Your task to perform on an android device: Show me productivity apps on the Play Store Image 0: 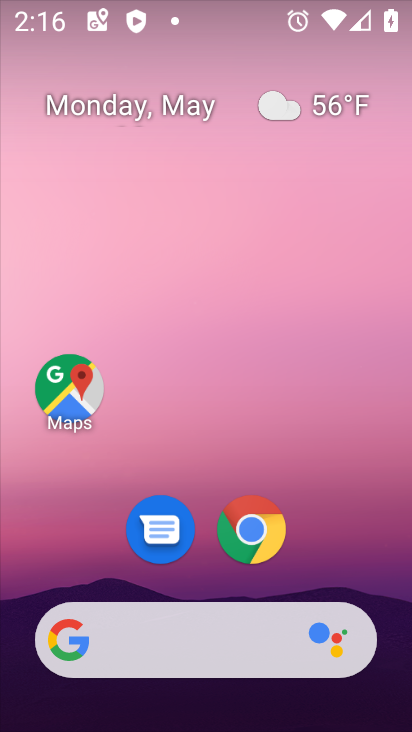
Step 0: drag from (328, 561) to (315, 97)
Your task to perform on an android device: Show me productivity apps on the Play Store Image 1: 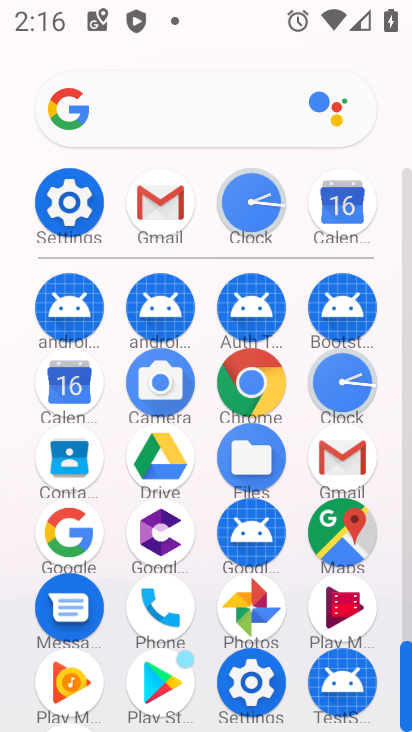
Step 1: click (161, 667)
Your task to perform on an android device: Show me productivity apps on the Play Store Image 2: 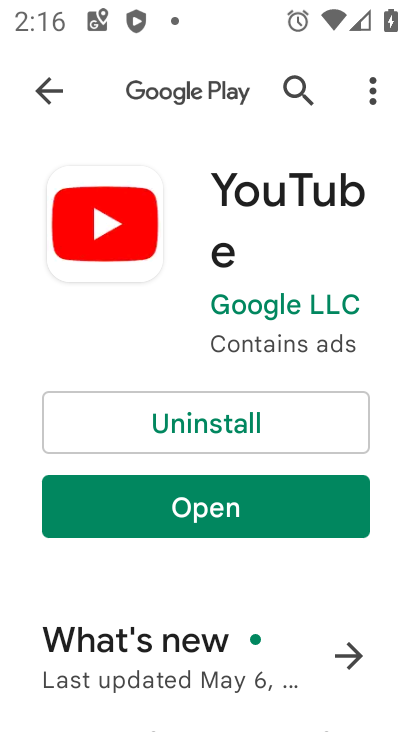
Step 2: click (31, 98)
Your task to perform on an android device: Show me productivity apps on the Play Store Image 3: 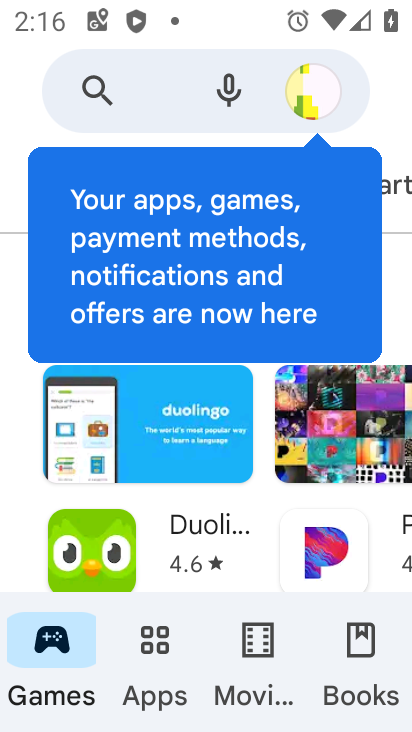
Step 3: click (114, 679)
Your task to perform on an android device: Show me productivity apps on the Play Store Image 4: 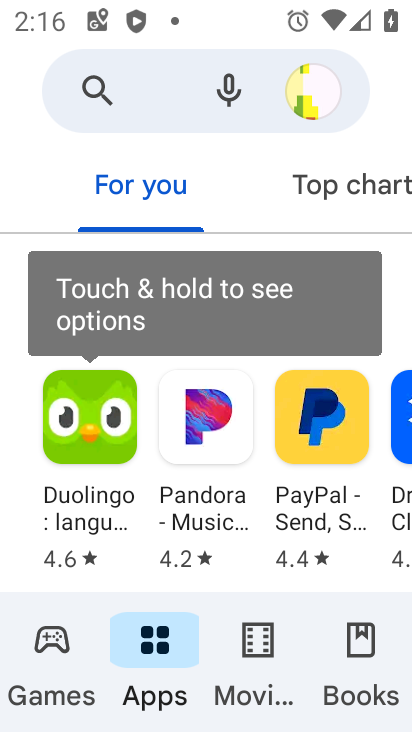
Step 4: drag from (376, 180) to (28, 212)
Your task to perform on an android device: Show me productivity apps on the Play Store Image 5: 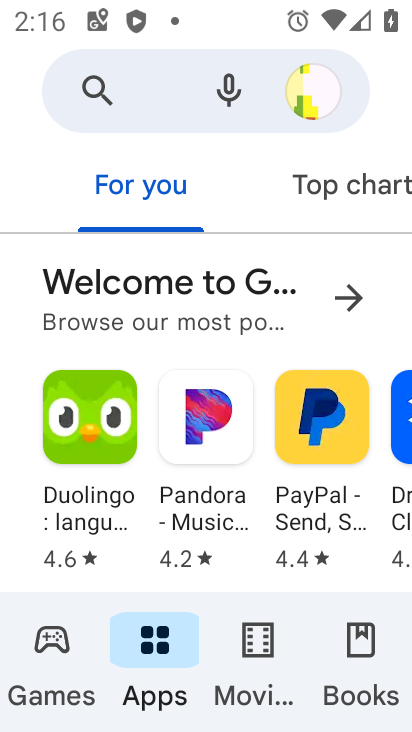
Step 5: drag from (353, 189) to (16, 223)
Your task to perform on an android device: Show me productivity apps on the Play Store Image 6: 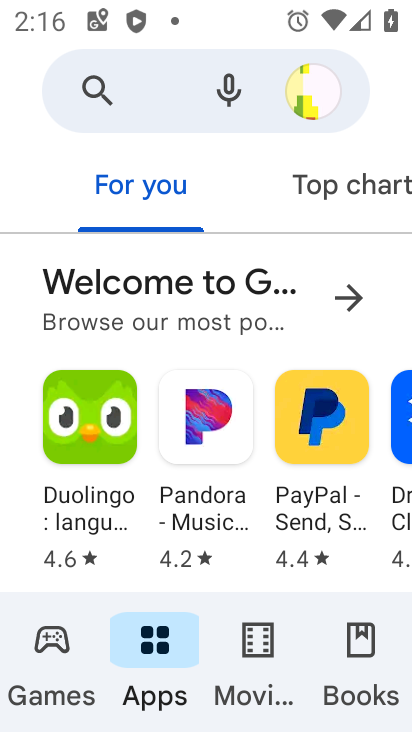
Step 6: drag from (354, 187) to (79, 212)
Your task to perform on an android device: Show me productivity apps on the Play Store Image 7: 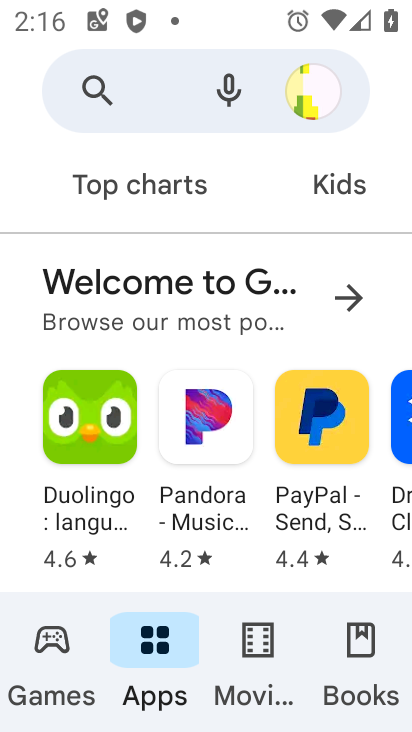
Step 7: drag from (379, 209) to (140, 220)
Your task to perform on an android device: Show me productivity apps on the Play Store Image 8: 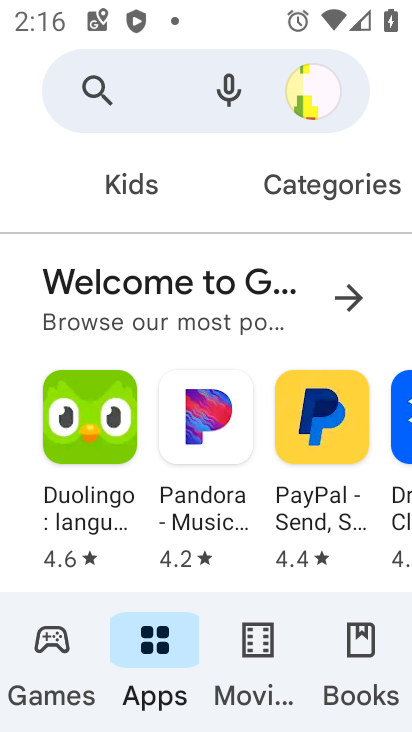
Step 8: click (324, 199)
Your task to perform on an android device: Show me productivity apps on the Play Store Image 9: 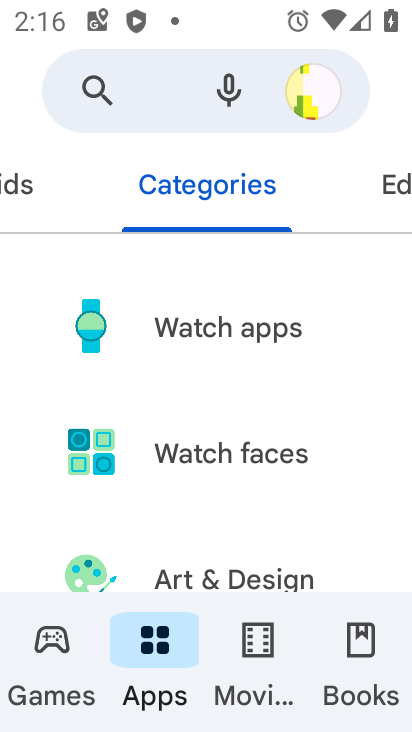
Step 9: drag from (259, 527) to (272, 263)
Your task to perform on an android device: Show me productivity apps on the Play Store Image 10: 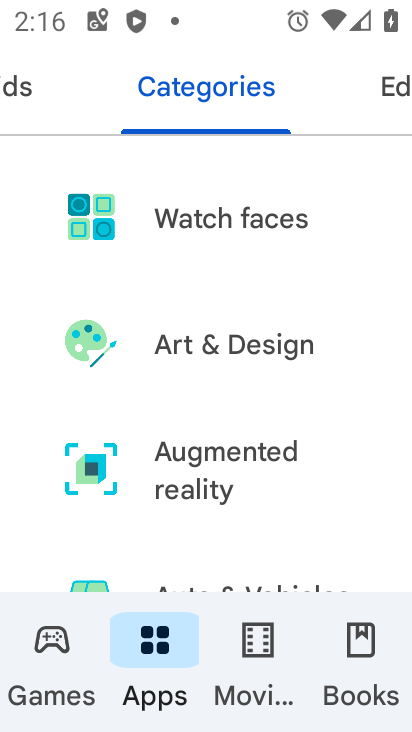
Step 10: drag from (284, 490) to (282, 202)
Your task to perform on an android device: Show me productivity apps on the Play Store Image 11: 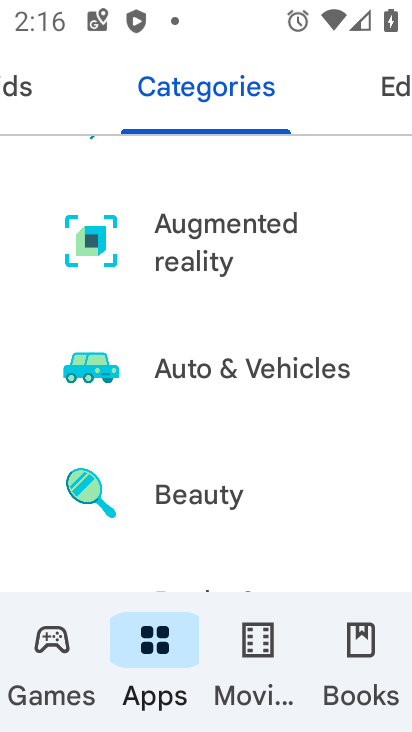
Step 11: drag from (300, 504) to (291, 311)
Your task to perform on an android device: Show me productivity apps on the Play Store Image 12: 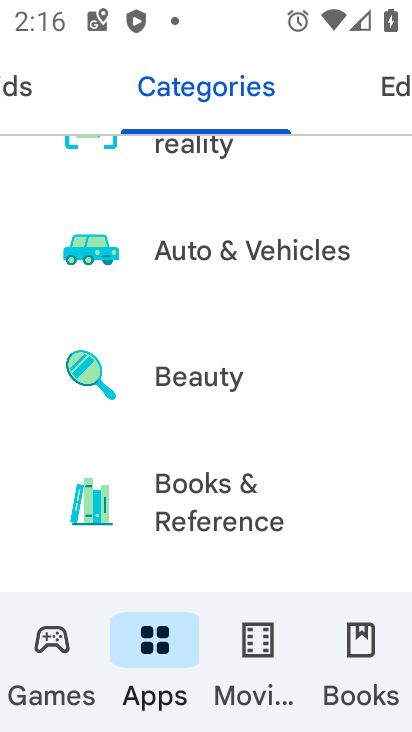
Step 12: drag from (288, 505) to (270, 173)
Your task to perform on an android device: Show me productivity apps on the Play Store Image 13: 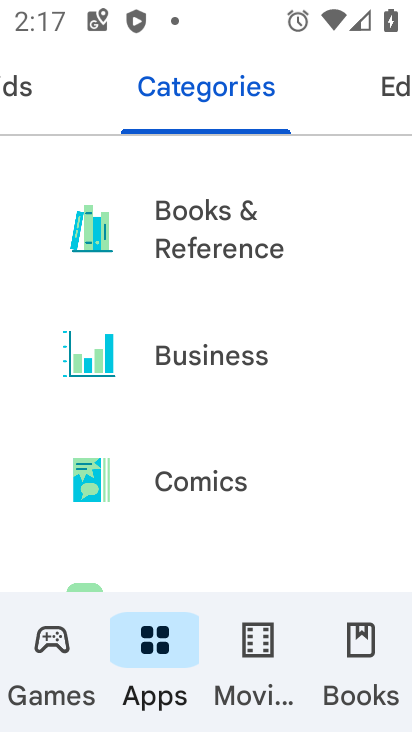
Step 13: drag from (295, 478) to (270, 288)
Your task to perform on an android device: Show me productivity apps on the Play Store Image 14: 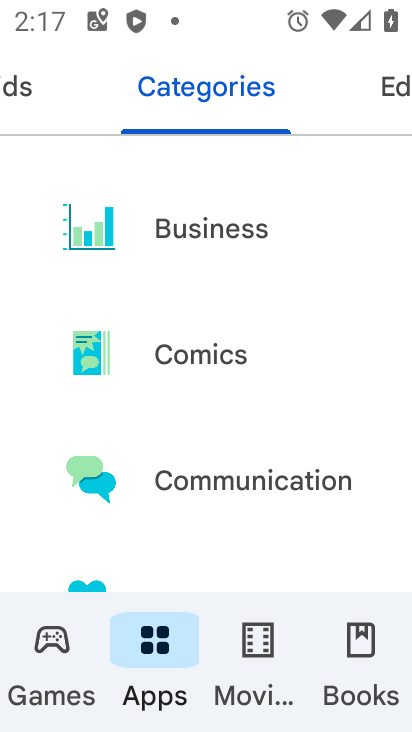
Step 14: drag from (314, 492) to (303, 325)
Your task to perform on an android device: Show me productivity apps on the Play Store Image 15: 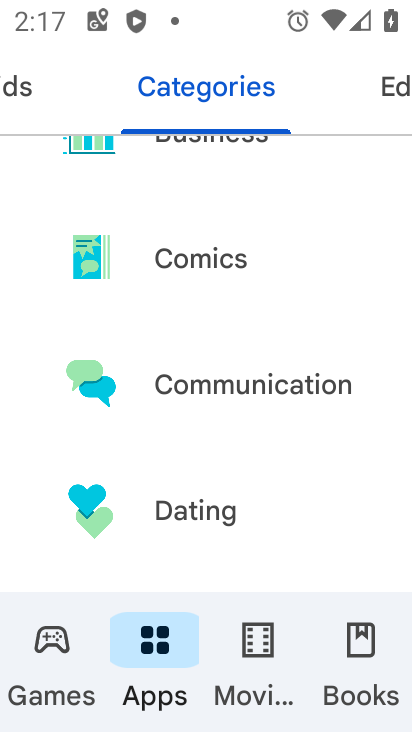
Step 15: drag from (314, 538) to (287, 402)
Your task to perform on an android device: Show me productivity apps on the Play Store Image 16: 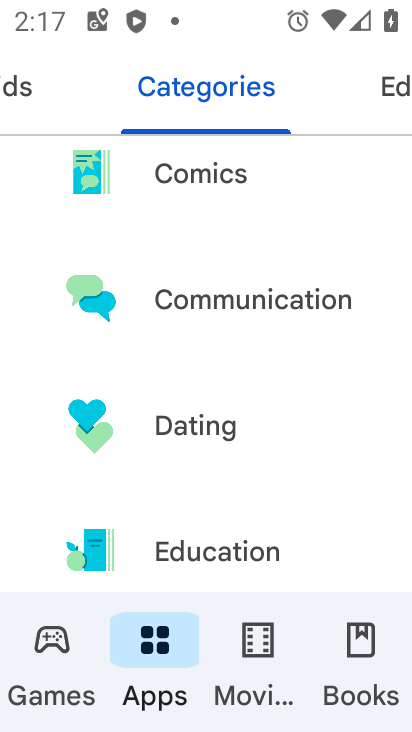
Step 16: drag from (298, 509) to (296, 320)
Your task to perform on an android device: Show me productivity apps on the Play Store Image 17: 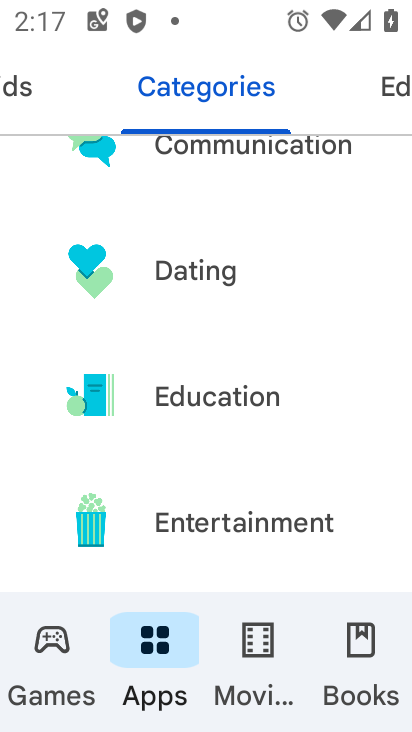
Step 17: drag from (310, 500) to (290, 316)
Your task to perform on an android device: Show me productivity apps on the Play Store Image 18: 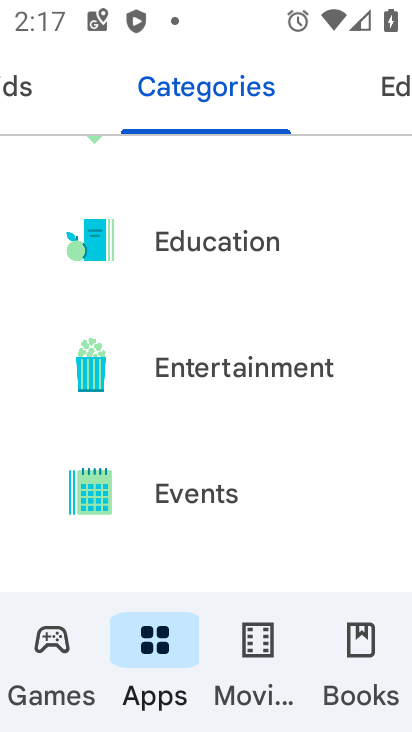
Step 18: click (301, 312)
Your task to perform on an android device: Show me productivity apps on the Play Store Image 19: 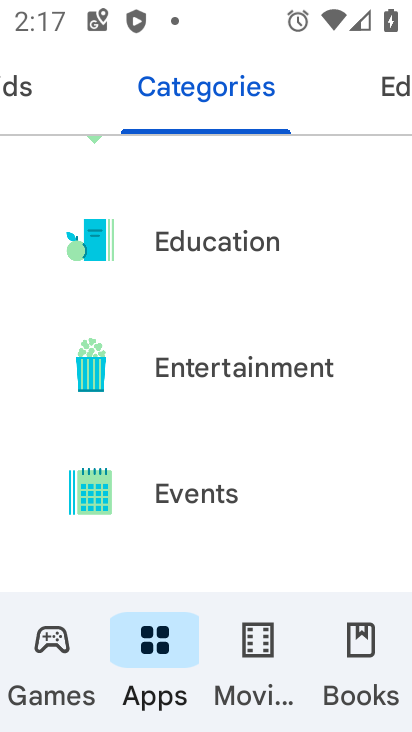
Step 19: drag from (276, 543) to (274, 371)
Your task to perform on an android device: Show me productivity apps on the Play Store Image 20: 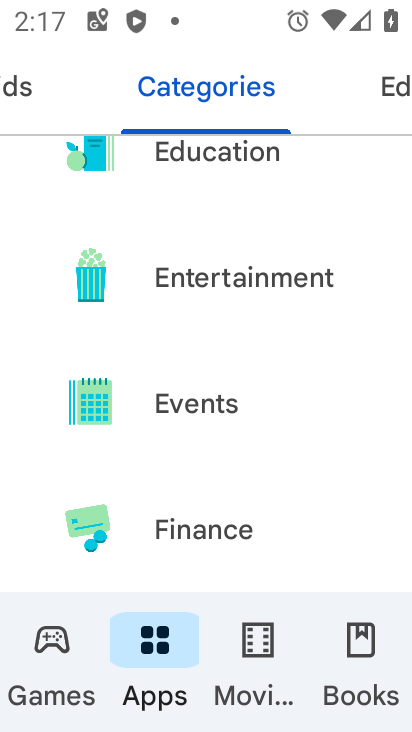
Step 20: drag from (292, 516) to (282, 356)
Your task to perform on an android device: Show me productivity apps on the Play Store Image 21: 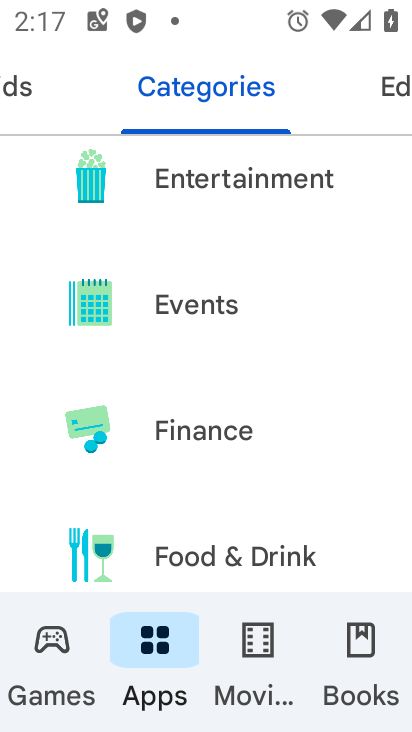
Step 21: drag from (279, 533) to (244, 295)
Your task to perform on an android device: Show me productivity apps on the Play Store Image 22: 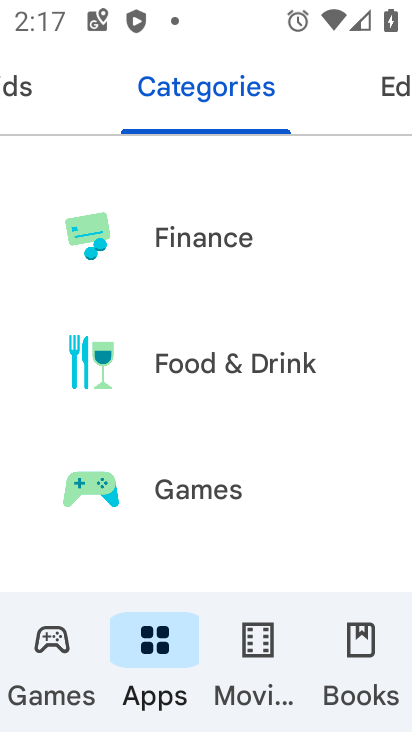
Step 22: drag from (260, 519) to (263, 264)
Your task to perform on an android device: Show me productivity apps on the Play Store Image 23: 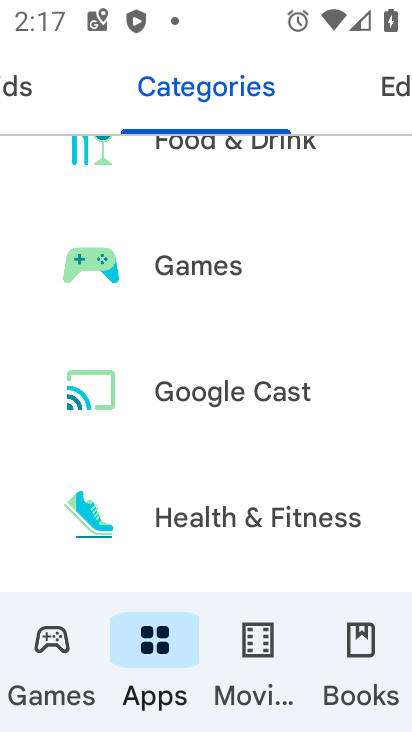
Step 23: drag from (276, 522) to (247, 297)
Your task to perform on an android device: Show me productivity apps on the Play Store Image 24: 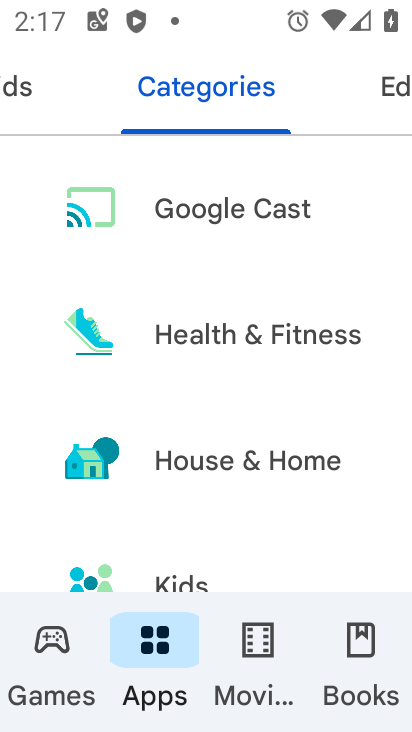
Step 24: drag from (226, 500) to (217, 282)
Your task to perform on an android device: Show me productivity apps on the Play Store Image 25: 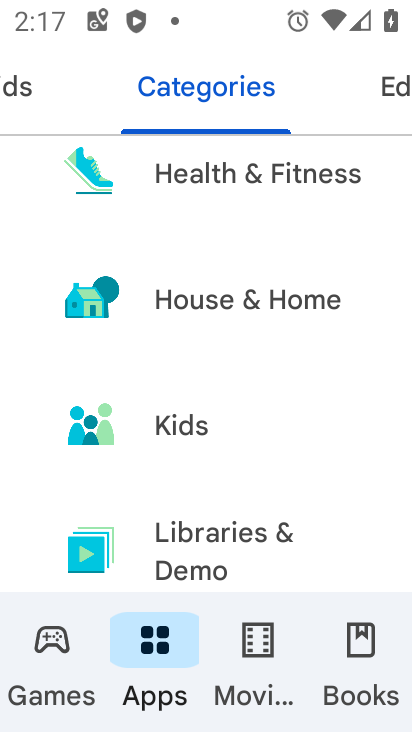
Step 25: drag from (195, 539) to (196, 375)
Your task to perform on an android device: Show me productivity apps on the Play Store Image 26: 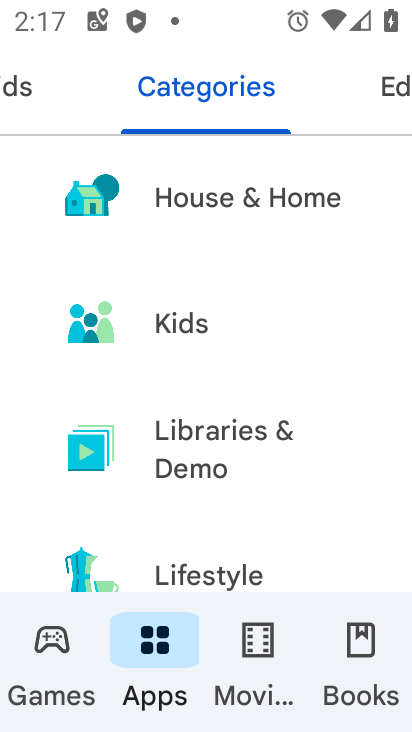
Step 26: drag from (237, 547) to (226, 299)
Your task to perform on an android device: Show me productivity apps on the Play Store Image 27: 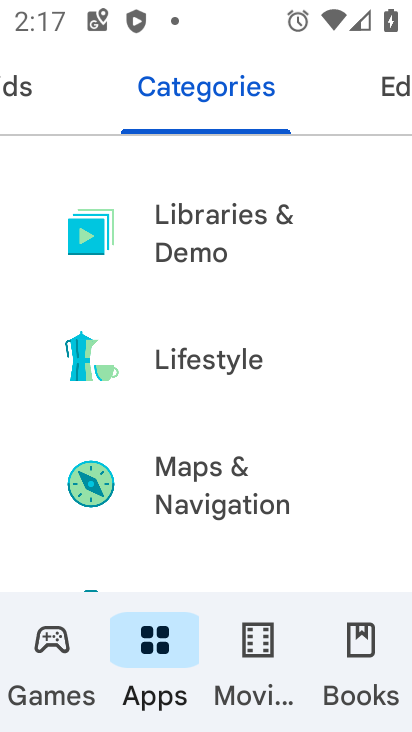
Step 27: drag from (235, 505) to (216, 329)
Your task to perform on an android device: Show me productivity apps on the Play Store Image 28: 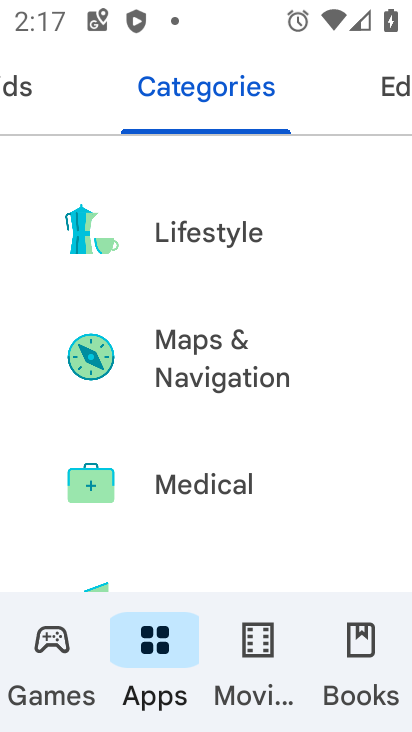
Step 28: drag from (214, 530) to (225, 295)
Your task to perform on an android device: Show me productivity apps on the Play Store Image 29: 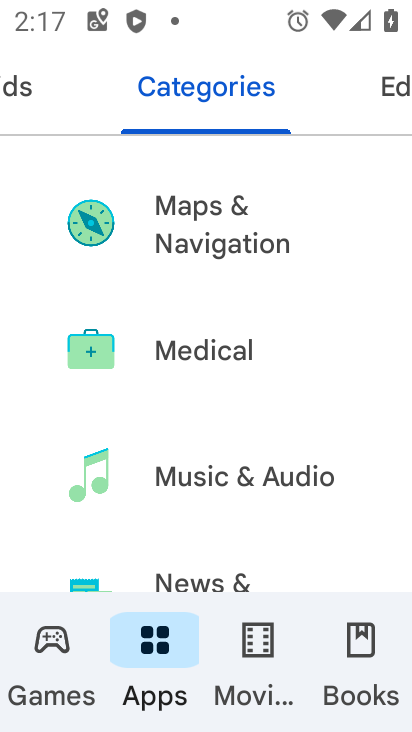
Step 29: drag from (215, 514) to (228, 247)
Your task to perform on an android device: Show me productivity apps on the Play Store Image 30: 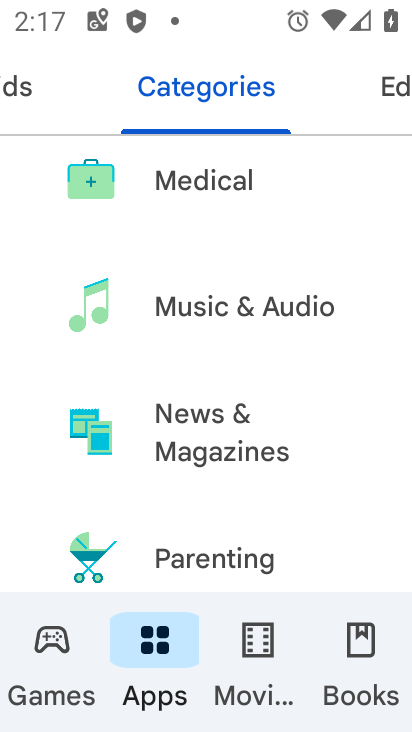
Step 30: drag from (219, 482) to (212, 199)
Your task to perform on an android device: Show me productivity apps on the Play Store Image 31: 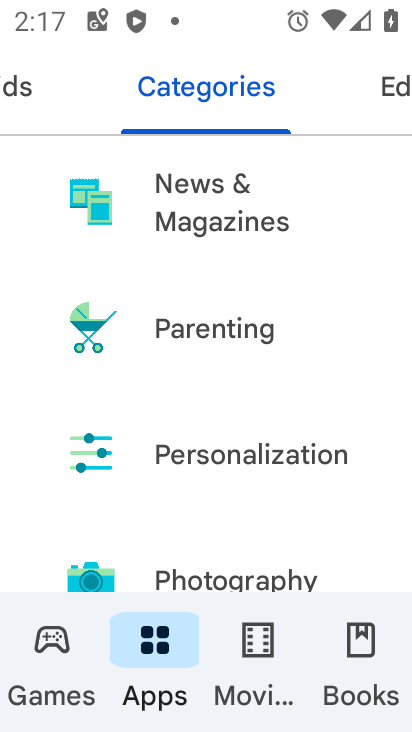
Step 31: drag from (198, 503) to (188, 271)
Your task to perform on an android device: Show me productivity apps on the Play Store Image 32: 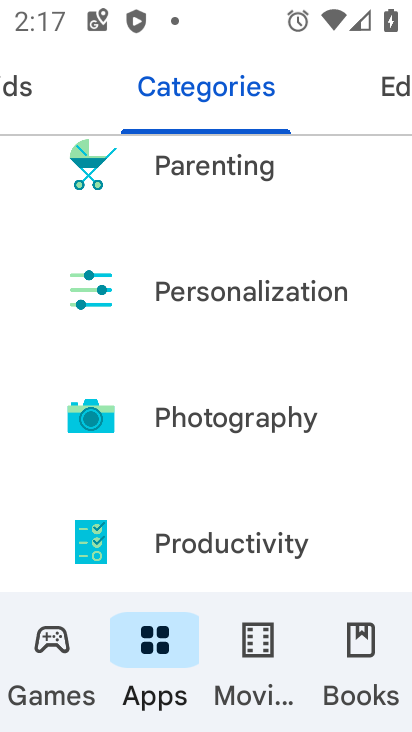
Step 32: click (213, 552)
Your task to perform on an android device: Show me productivity apps on the Play Store Image 33: 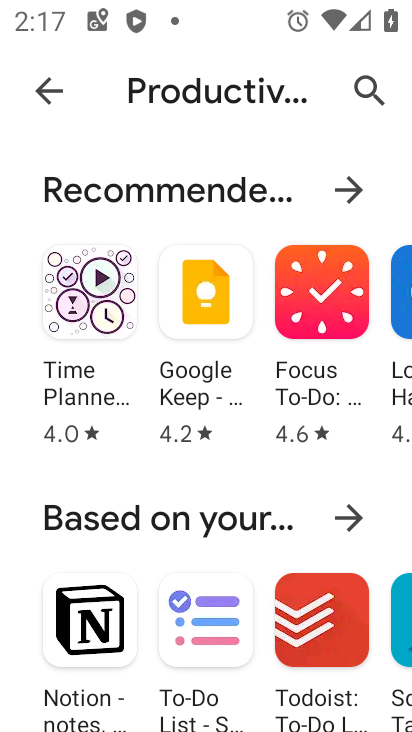
Step 33: task complete